Your task to perform on an android device: Open Youtube and go to the subscriptions tab Image 0: 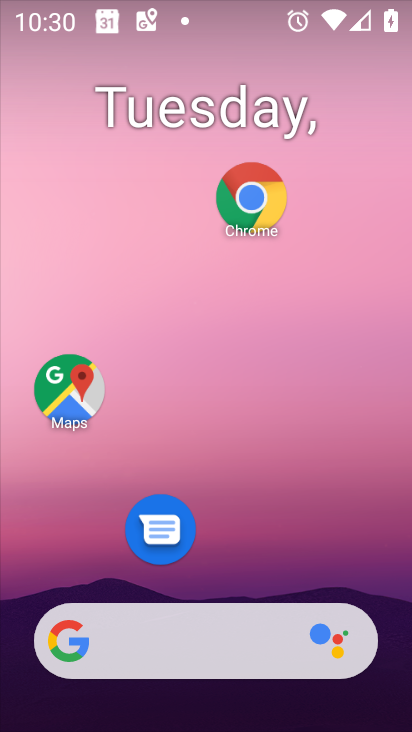
Step 0: drag from (376, 515) to (390, 59)
Your task to perform on an android device: Open Youtube and go to the subscriptions tab Image 1: 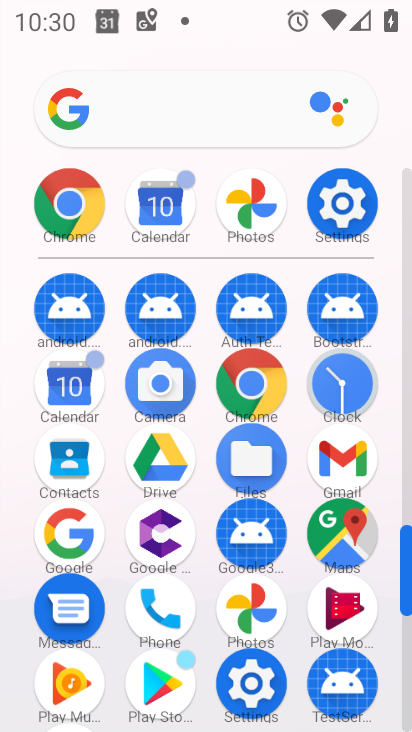
Step 1: click (406, 698)
Your task to perform on an android device: Open Youtube and go to the subscriptions tab Image 2: 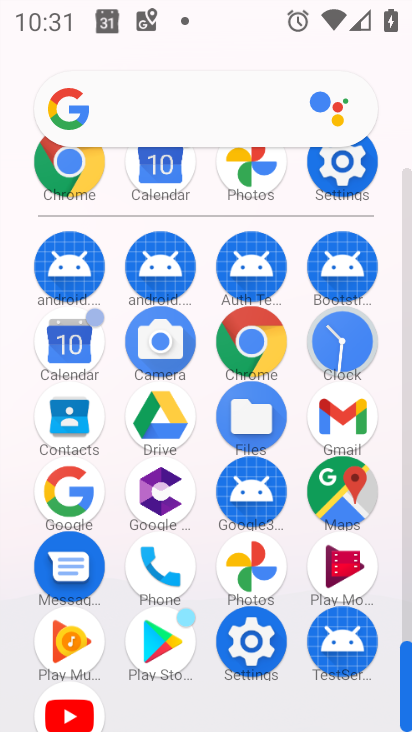
Step 2: click (66, 703)
Your task to perform on an android device: Open Youtube and go to the subscriptions tab Image 3: 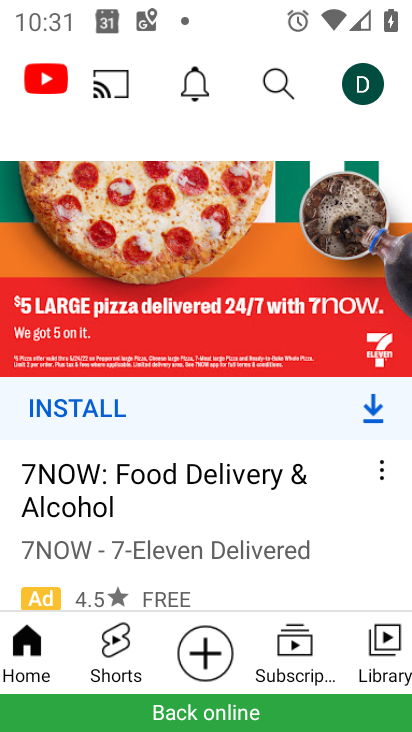
Step 3: click (316, 642)
Your task to perform on an android device: Open Youtube and go to the subscriptions tab Image 4: 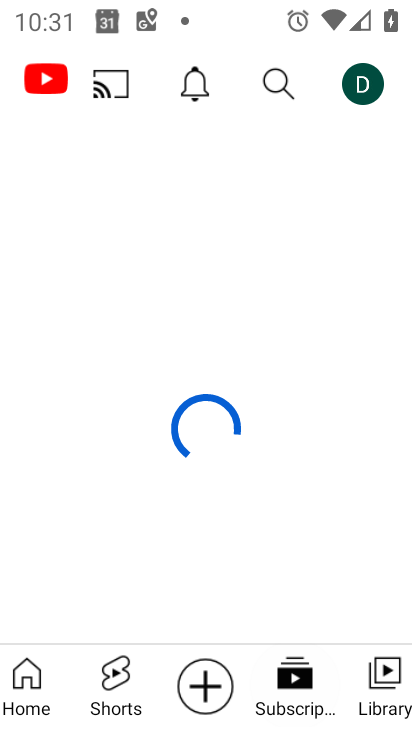
Step 4: task complete